Your task to perform on an android device: Open Maps and search for coffee Image 0: 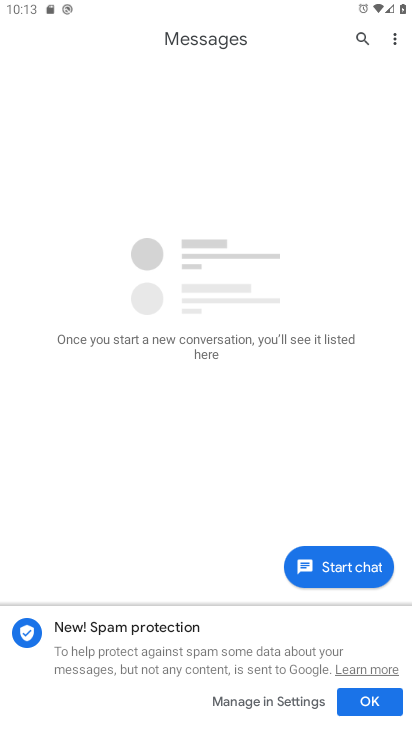
Step 0: press home button
Your task to perform on an android device: Open Maps and search for coffee Image 1: 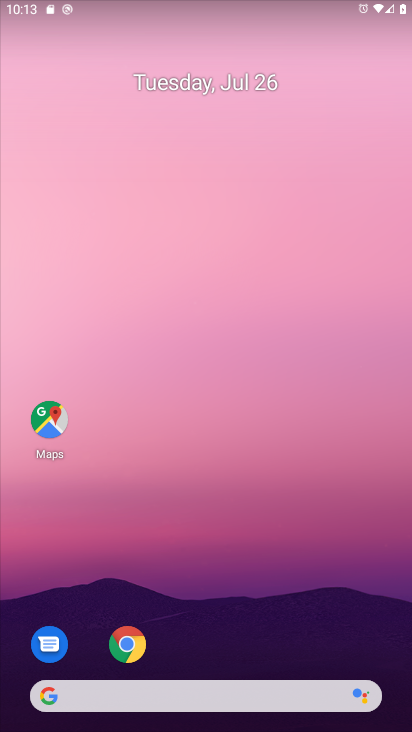
Step 1: click (49, 421)
Your task to perform on an android device: Open Maps and search for coffee Image 2: 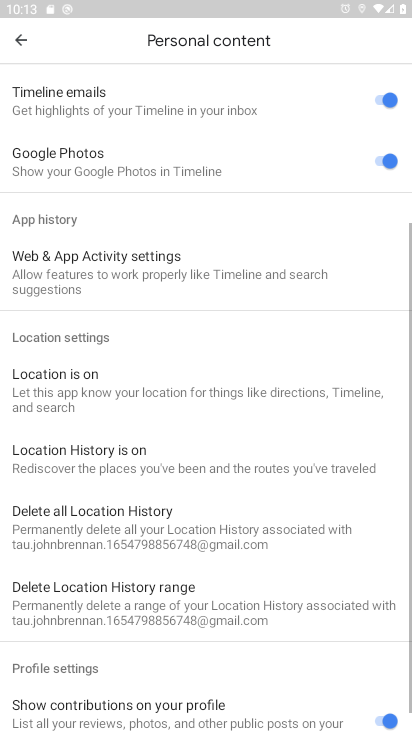
Step 2: click (12, 47)
Your task to perform on an android device: Open Maps and search for coffee Image 3: 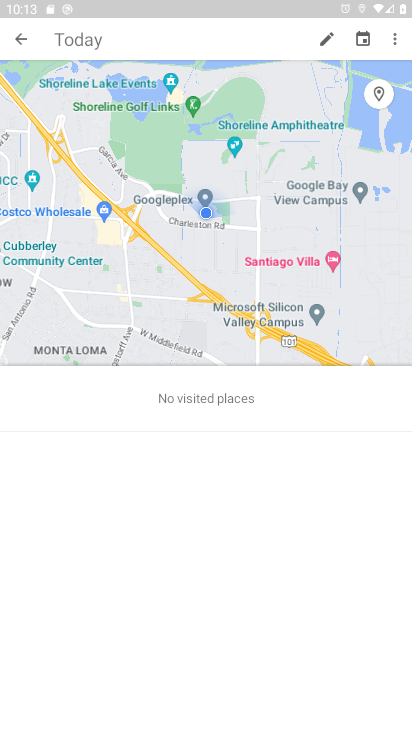
Step 3: click (22, 32)
Your task to perform on an android device: Open Maps and search for coffee Image 4: 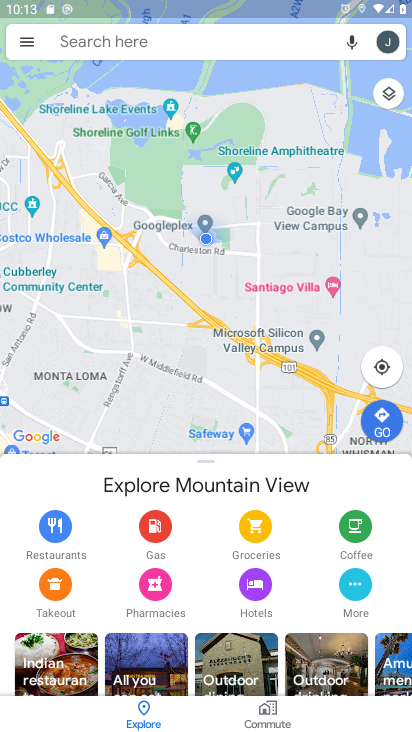
Step 4: click (176, 40)
Your task to perform on an android device: Open Maps and search for coffee Image 5: 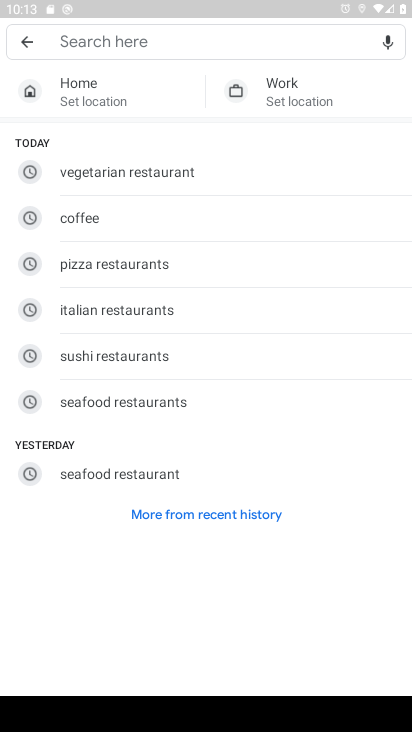
Step 5: type "coffee"
Your task to perform on an android device: Open Maps and search for coffee Image 6: 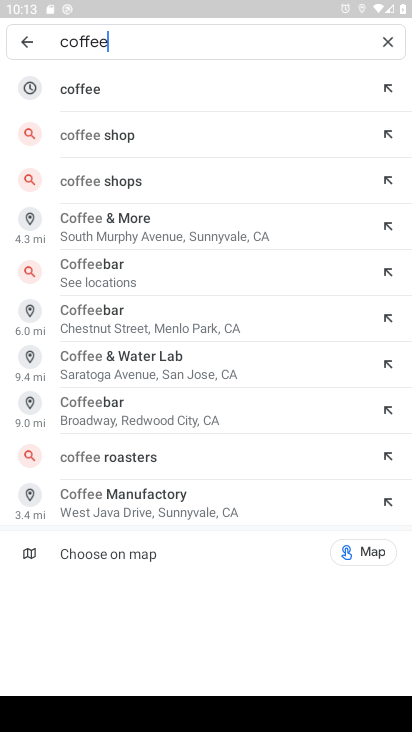
Step 6: click (161, 94)
Your task to perform on an android device: Open Maps and search for coffee Image 7: 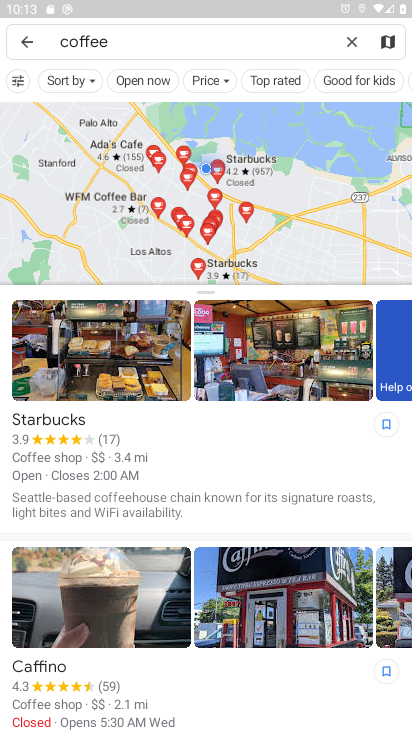
Step 7: task complete